Your task to perform on an android device: remove spam from my inbox in the gmail app Image 0: 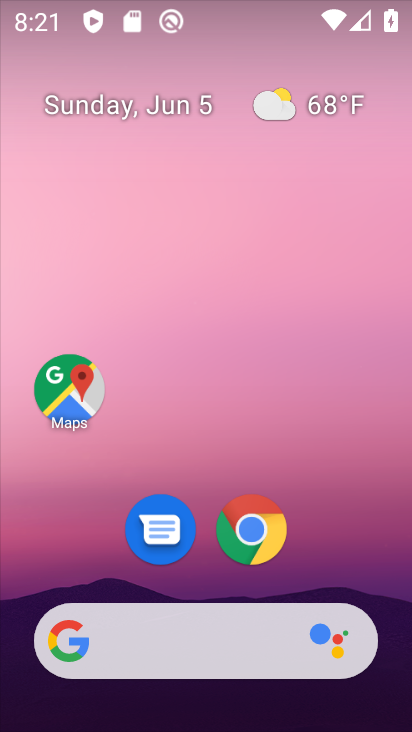
Step 0: drag from (197, 694) to (195, 117)
Your task to perform on an android device: remove spam from my inbox in the gmail app Image 1: 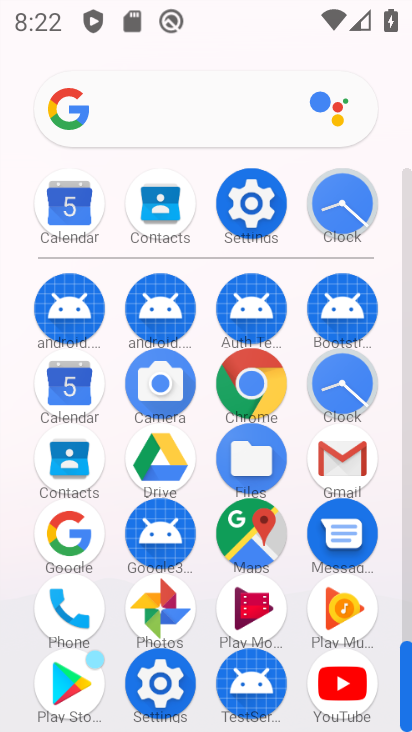
Step 1: click (339, 459)
Your task to perform on an android device: remove spam from my inbox in the gmail app Image 2: 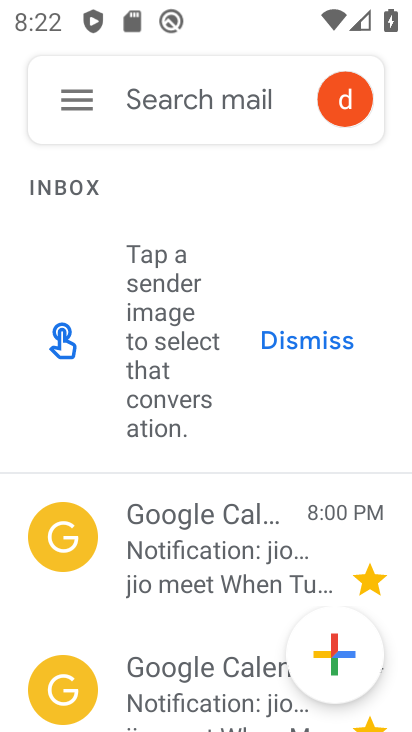
Step 2: click (67, 99)
Your task to perform on an android device: remove spam from my inbox in the gmail app Image 3: 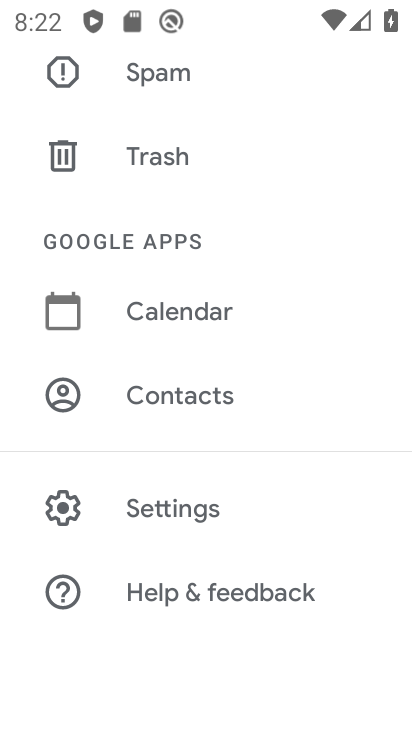
Step 3: click (228, 81)
Your task to perform on an android device: remove spam from my inbox in the gmail app Image 4: 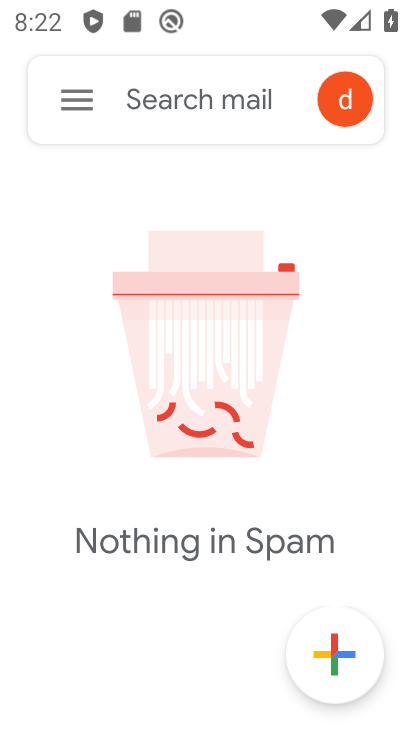
Step 4: task complete